Your task to perform on an android device: turn off notifications in google photos Image 0: 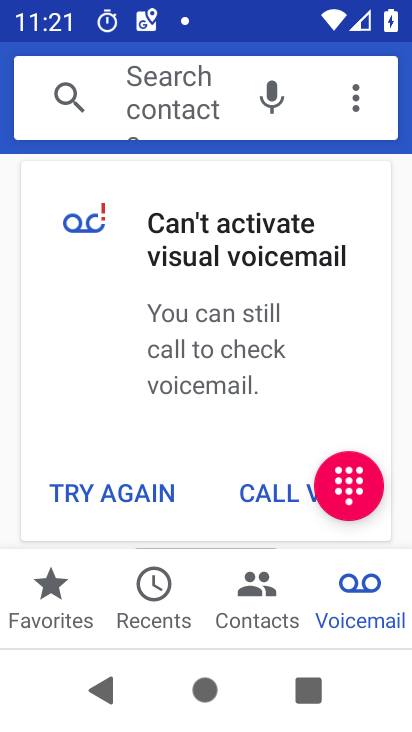
Step 0: press back button
Your task to perform on an android device: turn off notifications in google photos Image 1: 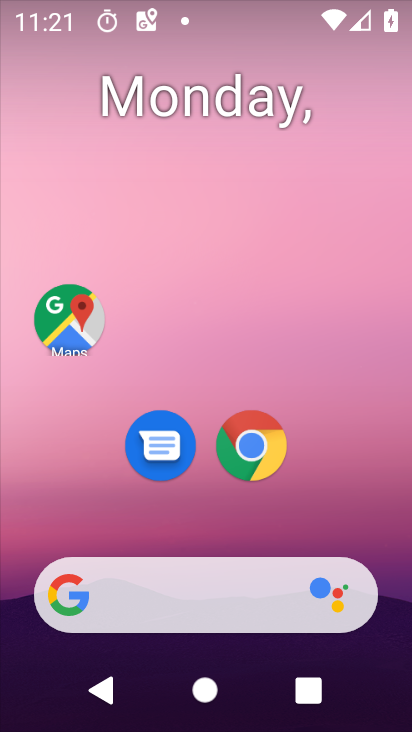
Step 1: drag from (188, 496) to (233, 56)
Your task to perform on an android device: turn off notifications in google photos Image 2: 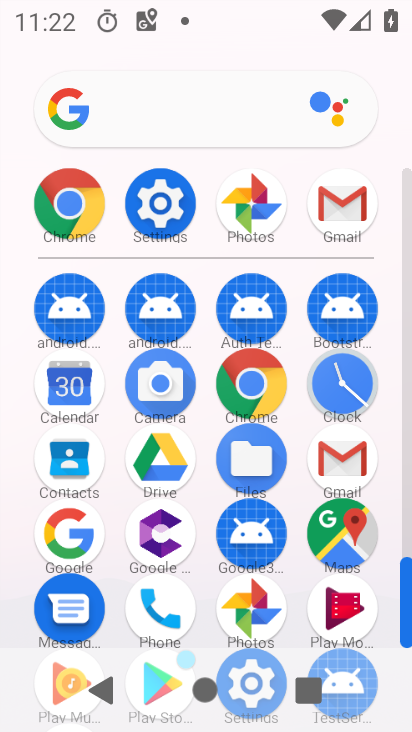
Step 2: click (252, 605)
Your task to perform on an android device: turn off notifications in google photos Image 3: 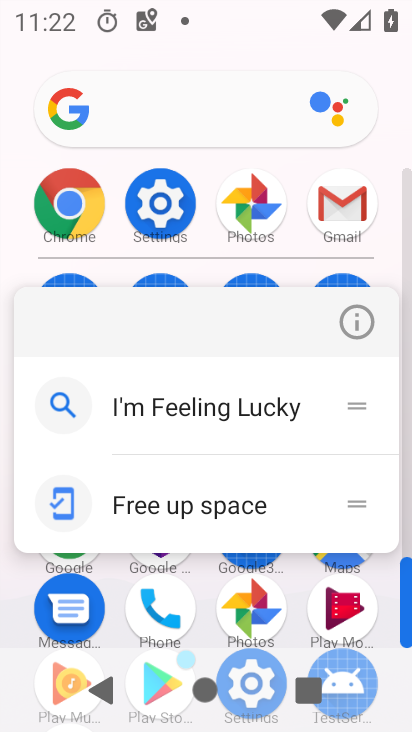
Step 3: click (358, 319)
Your task to perform on an android device: turn off notifications in google photos Image 4: 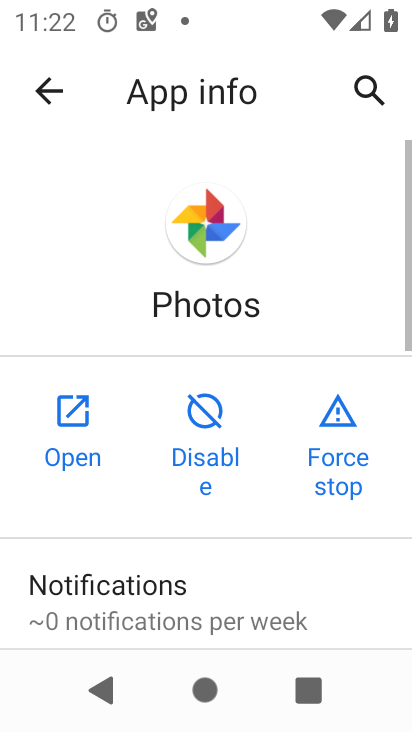
Step 4: click (158, 582)
Your task to perform on an android device: turn off notifications in google photos Image 5: 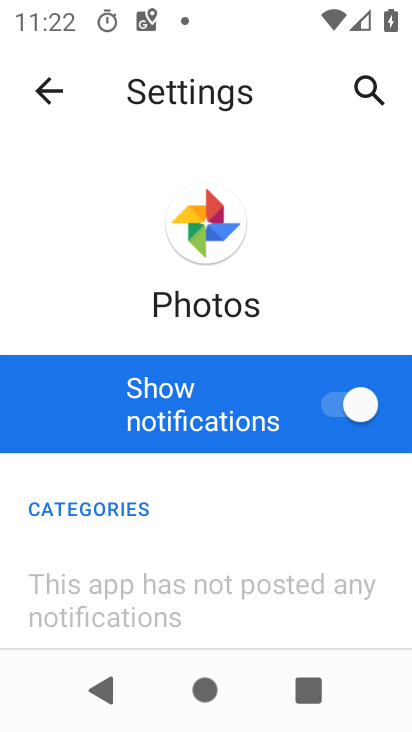
Step 5: click (361, 400)
Your task to perform on an android device: turn off notifications in google photos Image 6: 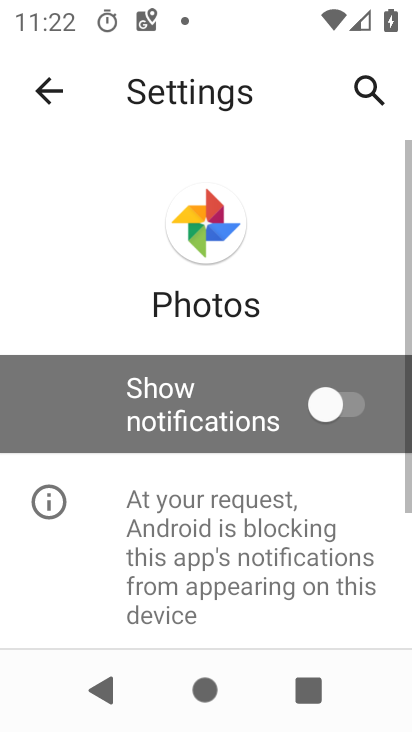
Step 6: task complete